Your task to perform on an android device: Go to Google maps Image 0: 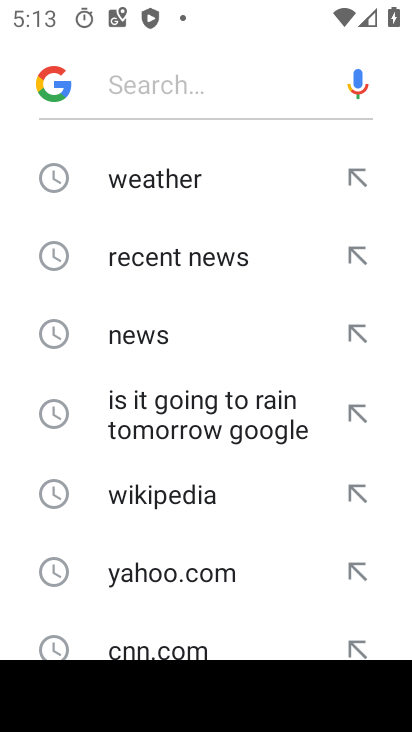
Step 0: press home button
Your task to perform on an android device: Go to Google maps Image 1: 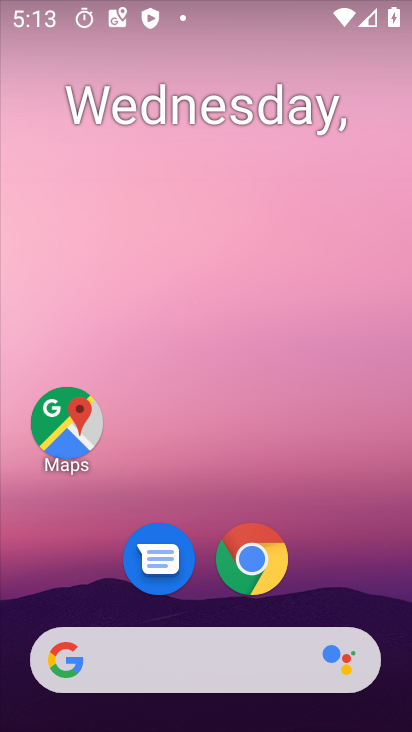
Step 1: click (87, 421)
Your task to perform on an android device: Go to Google maps Image 2: 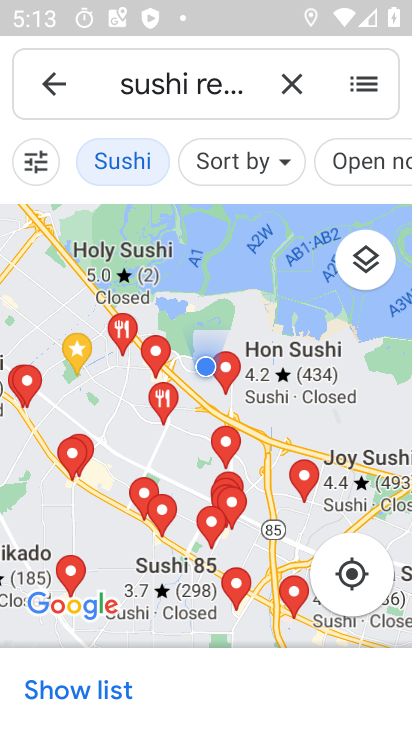
Step 2: task complete